Your task to perform on an android device: turn on wifi Image 0: 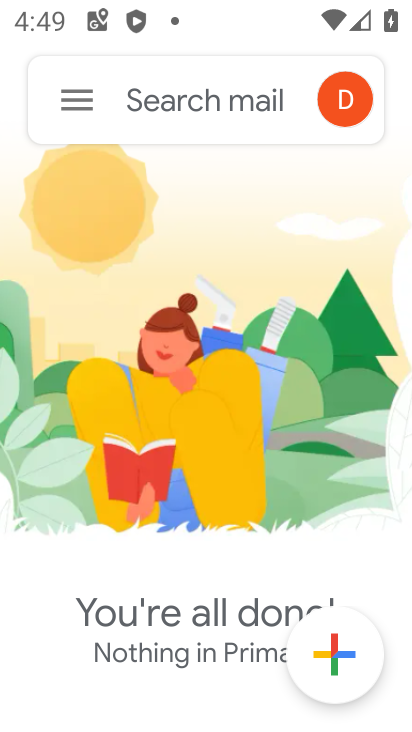
Step 0: press home button
Your task to perform on an android device: turn on wifi Image 1: 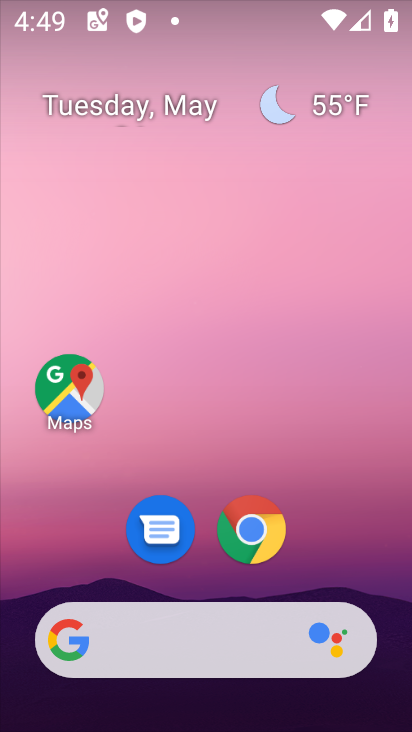
Step 1: drag from (246, 680) to (103, 52)
Your task to perform on an android device: turn on wifi Image 2: 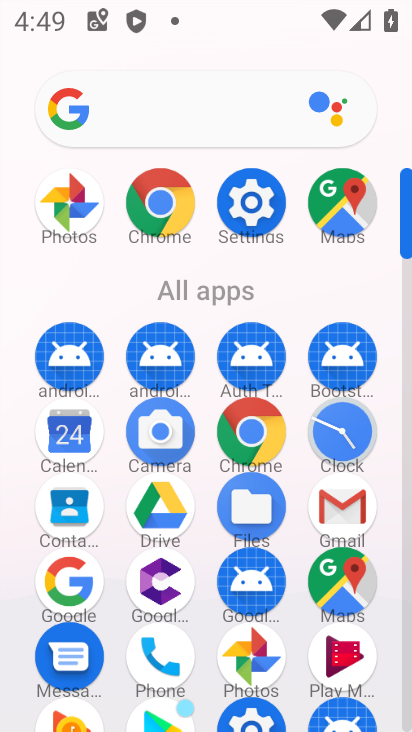
Step 2: click (250, 211)
Your task to perform on an android device: turn on wifi Image 3: 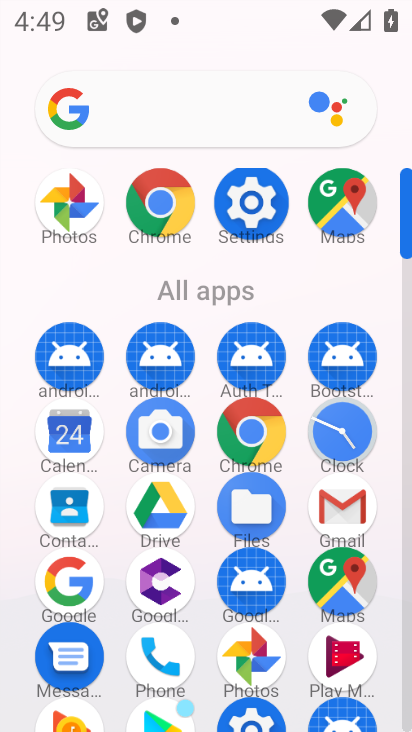
Step 3: click (247, 212)
Your task to perform on an android device: turn on wifi Image 4: 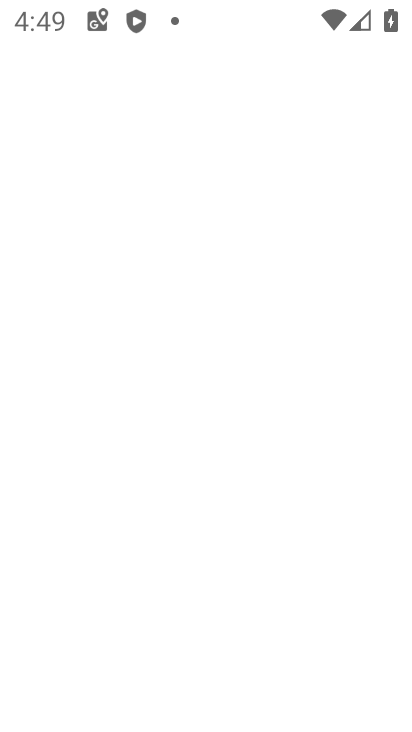
Step 4: click (247, 212)
Your task to perform on an android device: turn on wifi Image 5: 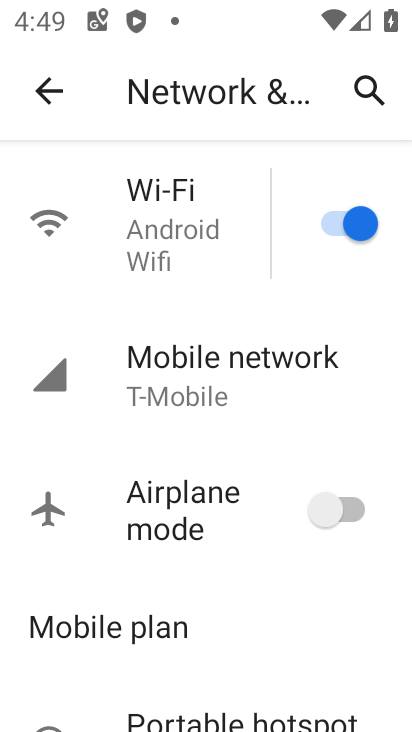
Step 5: task complete